Your task to perform on an android device: turn on location history Image 0: 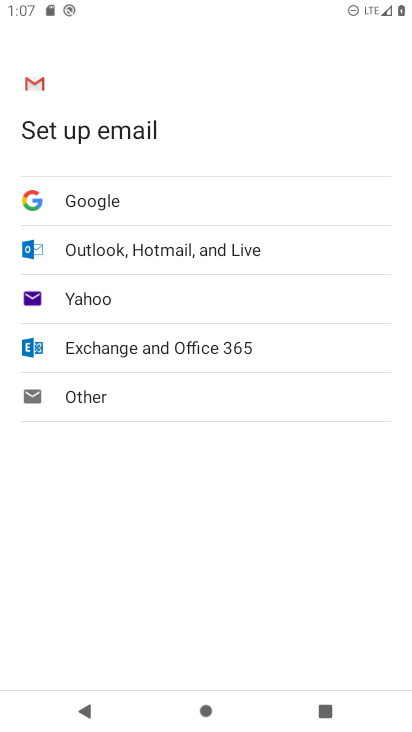
Step 0: press home button
Your task to perform on an android device: turn on location history Image 1: 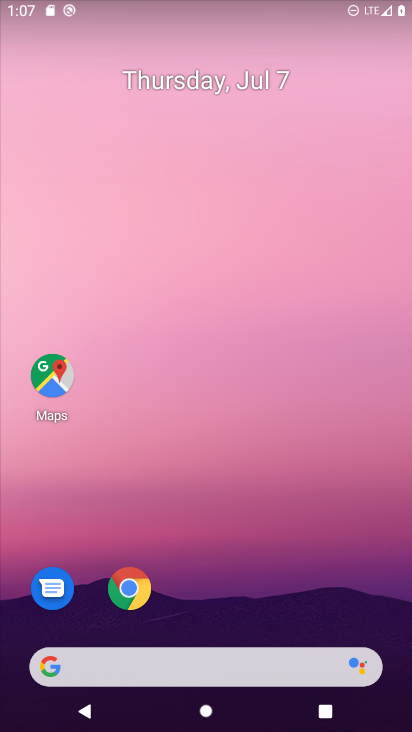
Step 1: drag from (267, 675) to (404, 54)
Your task to perform on an android device: turn on location history Image 2: 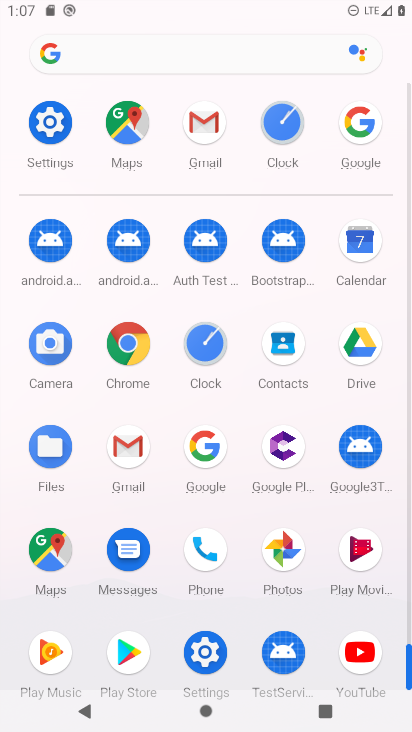
Step 2: click (208, 641)
Your task to perform on an android device: turn on location history Image 3: 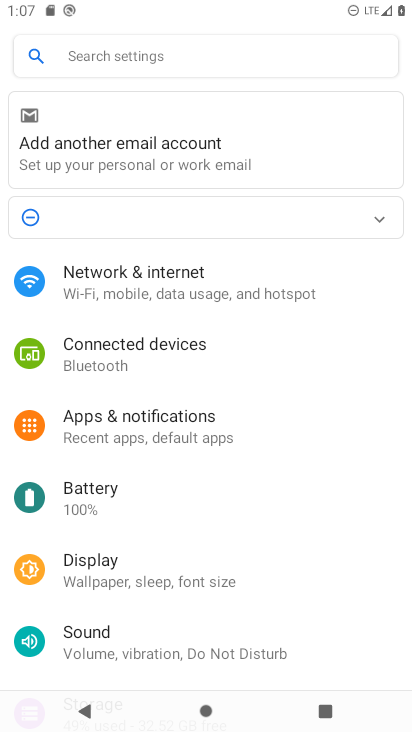
Step 3: drag from (187, 618) to (277, 86)
Your task to perform on an android device: turn on location history Image 4: 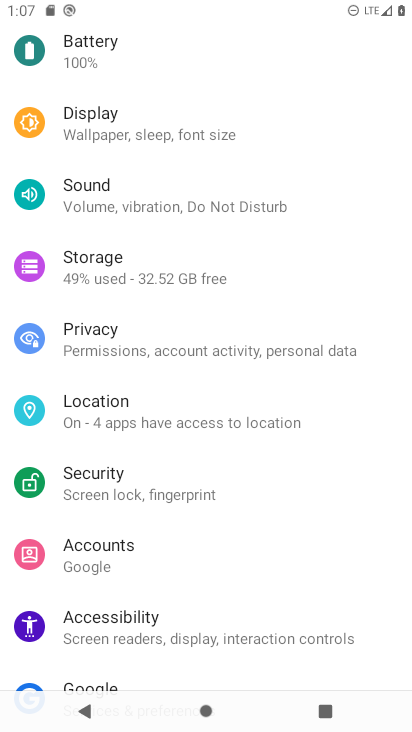
Step 4: click (206, 420)
Your task to perform on an android device: turn on location history Image 5: 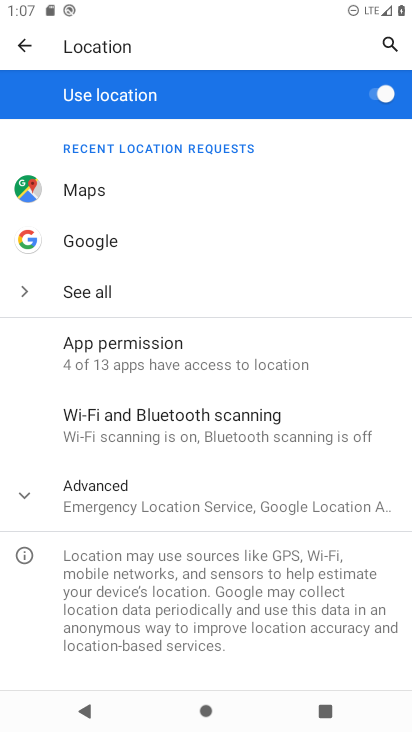
Step 5: click (171, 504)
Your task to perform on an android device: turn on location history Image 6: 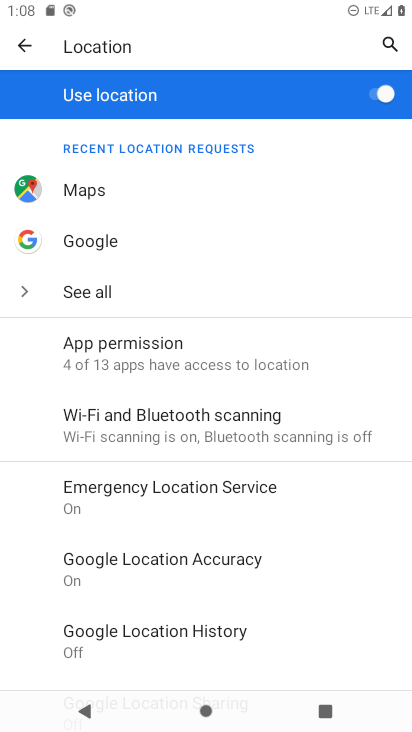
Step 6: click (183, 637)
Your task to perform on an android device: turn on location history Image 7: 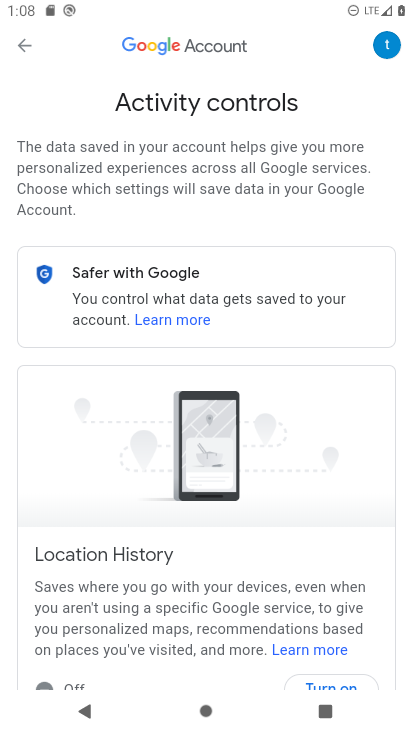
Step 7: drag from (251, 627) to (249, 101)
Your task to perform on an android device: turn on location history Image 8: 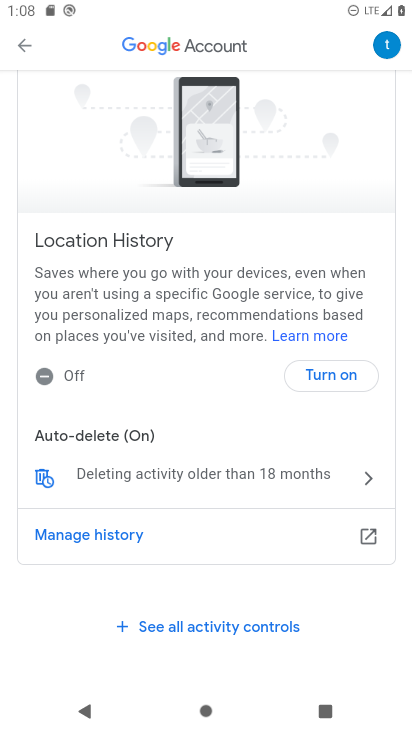
Step 8: click (354, 375)
Your task to perform on an android device: turn on location history Image 9: 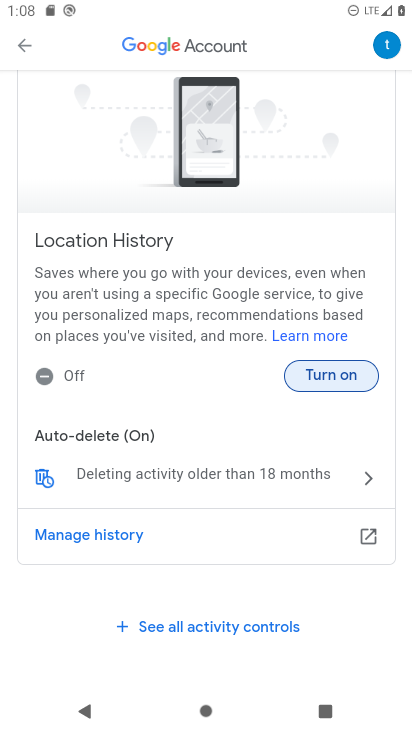
Step 9: click (339, 376)
Your task to perform on an android device: turn on location history Image 10: 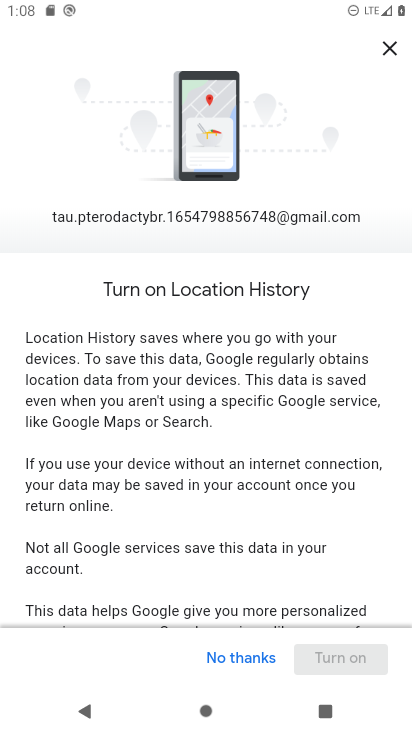
Step 10: drag from (293, 572) to (398, 168)
Your task to perform on an android device: turn on location history Image 11: 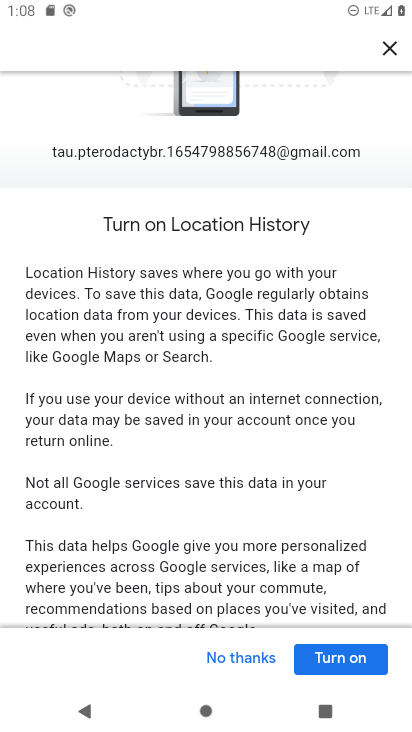
Step 11: click (333, 664)
Your task to perform on an android device: turn on location history Image 12: 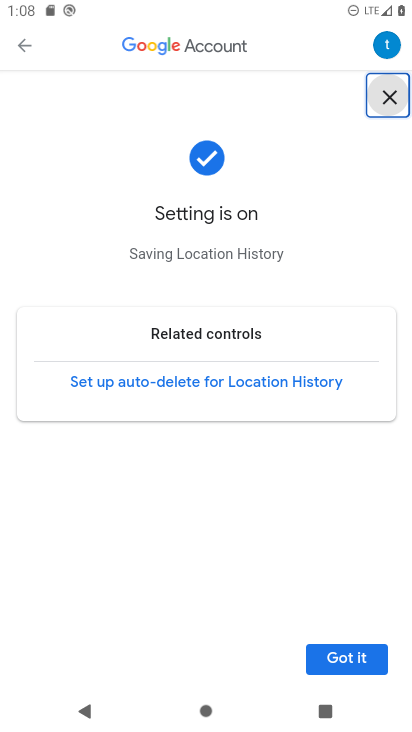
Step 12: task complete